Your task to perform on an android device: turn on sleep mode Image 0: 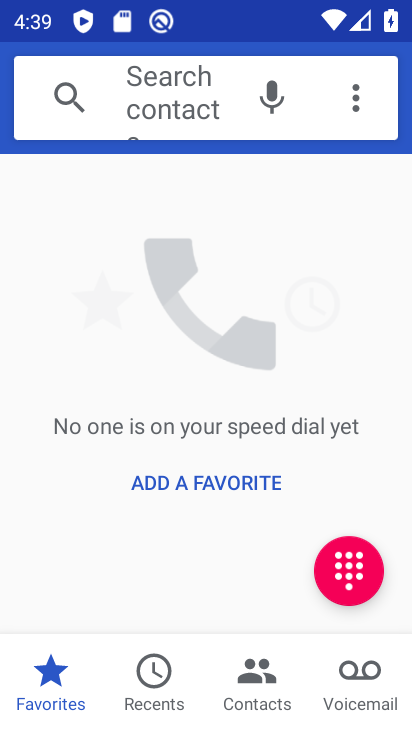
Step 0: press home button
Your task to perform on an android device: turn on sleep mode Image 1: 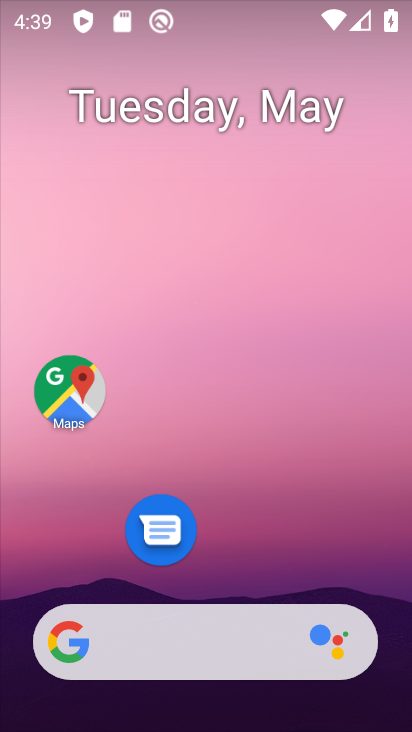
Step 1: drag from (250, 561) to (241, 53)
Your task to perform on an android device: turn on sleep mode Image 2: 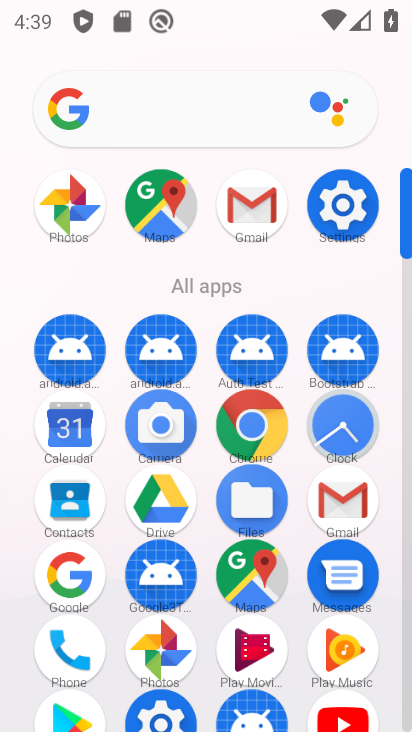
Step 2: click (322, 212)
Your task to perform on an android device: turn on sleep mode Image 3: 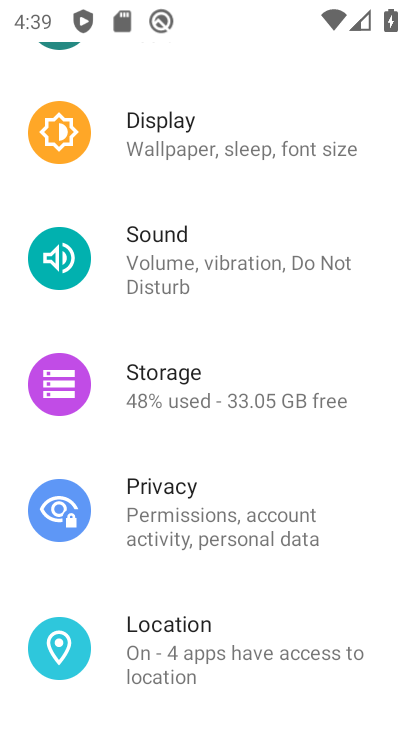
Step 3: task complete